Your task to perform on an android device: set the stopwatch Image 0: 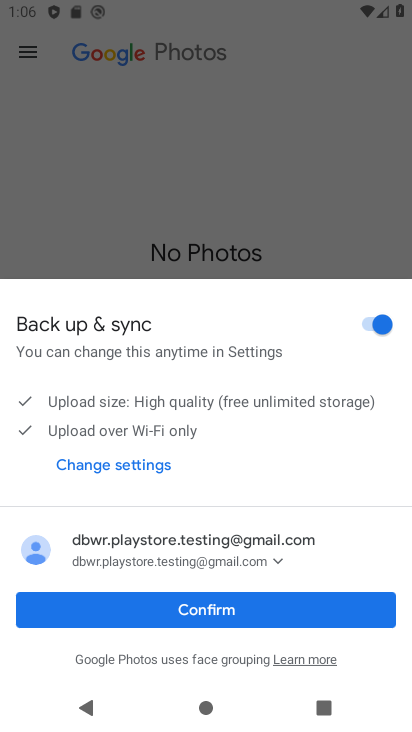
Step 0: press home button
Your task to perform on an android device: set the stopwatch Image 1: 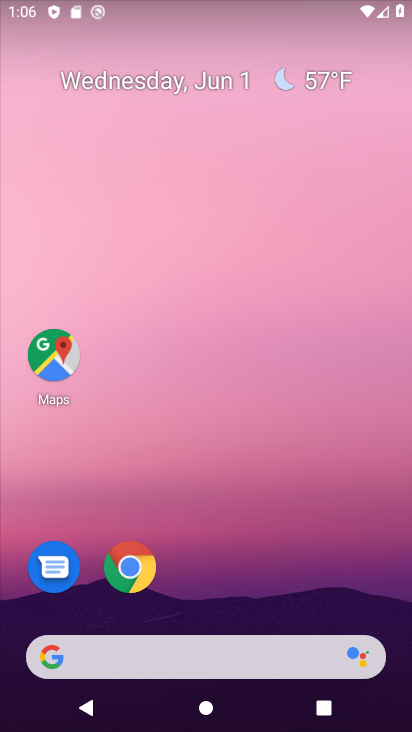
Step 1: drag from (250, 584) to (231, 268)
Your task to perform on an android device: set the stopwatch Image 2: 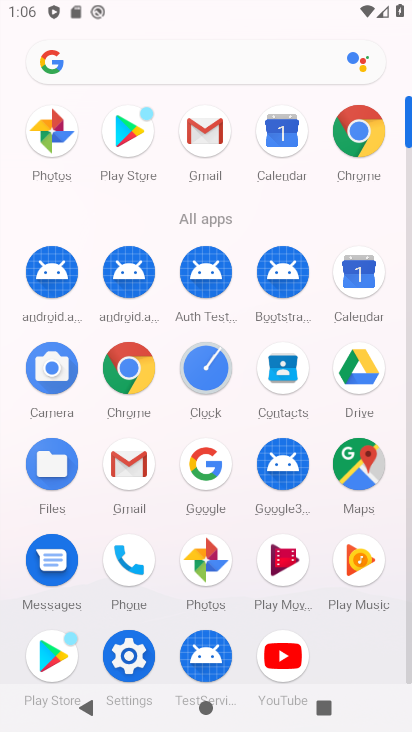
Step 2: click (208, 359)
Your task to perform on an android device: set the stopwatch Image 3: 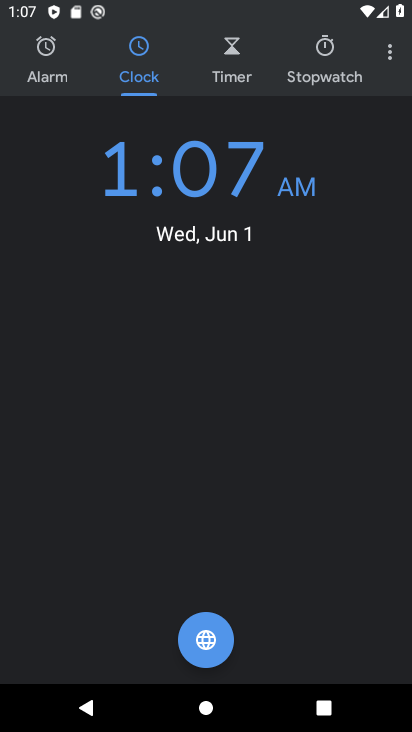
Step 3: click (326, 56)
Your task to perform on an android device: set the stopwatch Image 4: 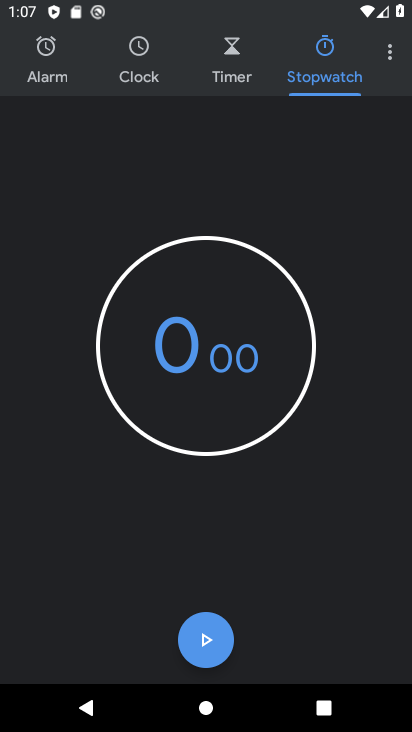
Step 4: task complete